Your task to perform on an android device: Show me popular games on the Play Store Image 0: 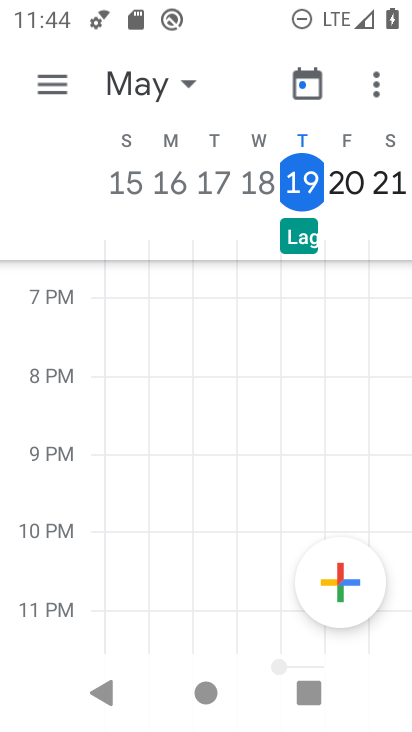
Step 0: press home button
Your task to perform on an android device: Show me popular games on the Play Store Image 1: 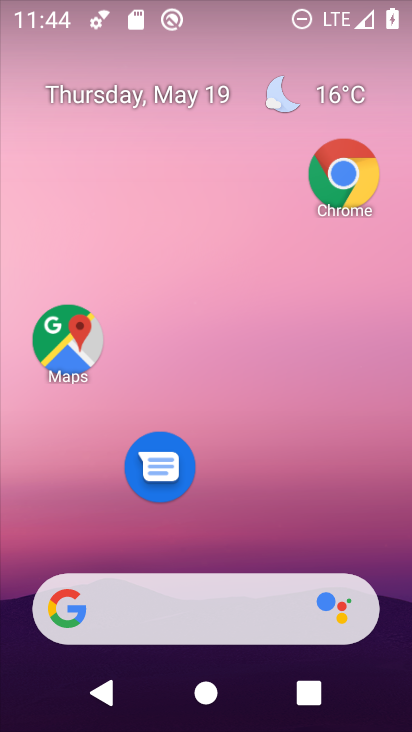
Step 1: drag from (286, 497) to (285, 189)
Your task to perform on an android device: Show me popular games on the Play Store Image 2: 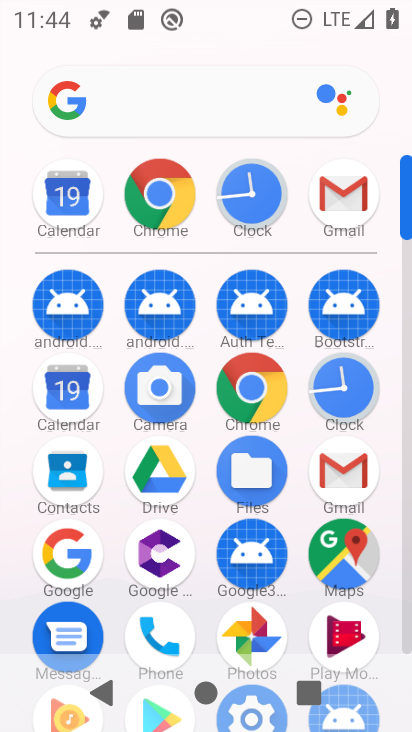
Step 2: drag from (203, 591) to (221, 246)
Your task to perform on an android device: Show me popular games on the Play Store Image 3: 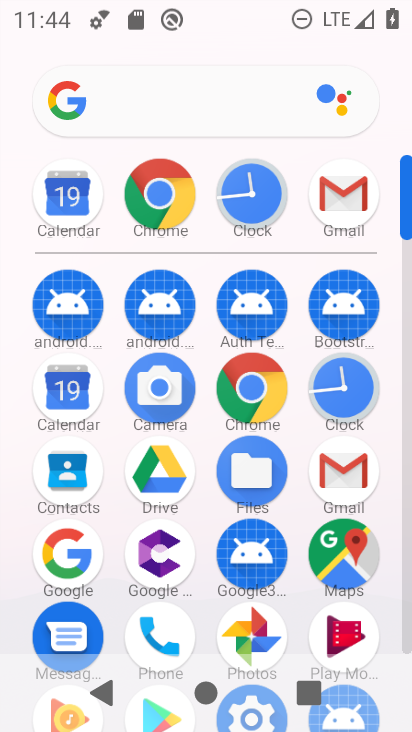
Step 3: drag from (191, 626) to (197, 440)
Your task to perform on an android device: Show me popular games on the Play Store Image 4: 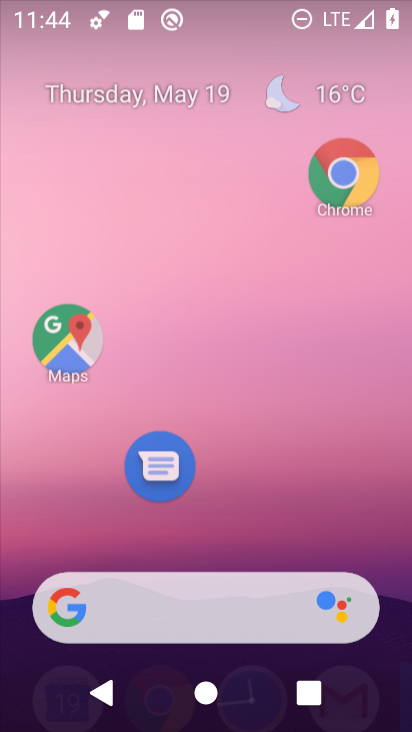
Step 4: drag from (176, 605) to (222, 348)
Your task to perform on an android device: Show me popular games on the Play Store Image 5: 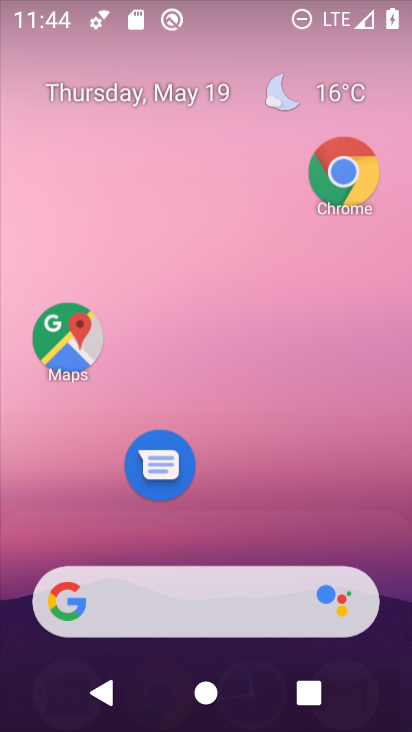
Step 5: drag from (201, 576) to (244, 341)
Your task to perform on an android device: Show me popular games on the Play Store Image 6: 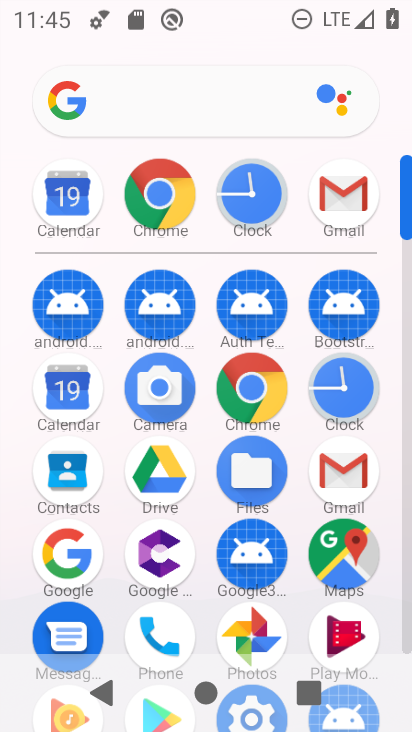
Step 6: drag from (243, 437) to (278, 171)
Your task to perform on an android device: Show me popular games on the Play Store Image 7: 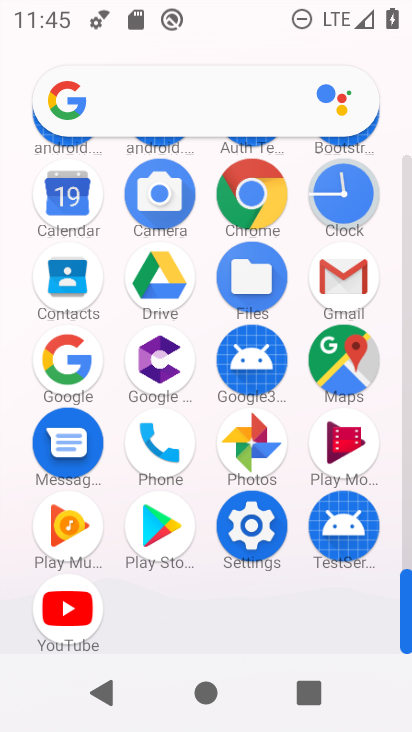
Step 7: click (164, 518)
Your task to perform on an android device: Show me popular games on the Play Store Image 8: 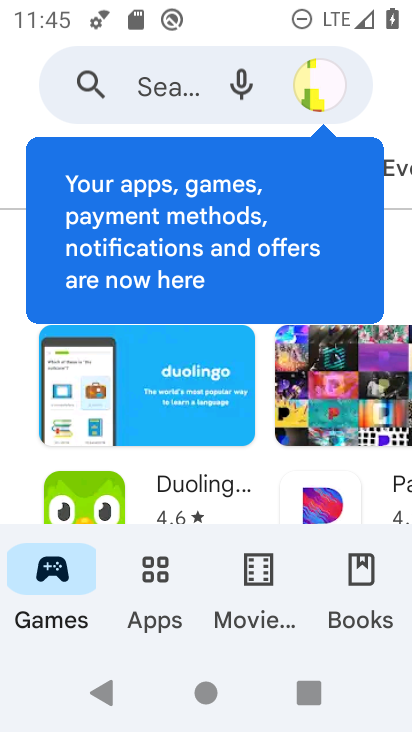
Step 8: task complete